Your task to perform on an android device: Open Maps and search for coffee Image 0: 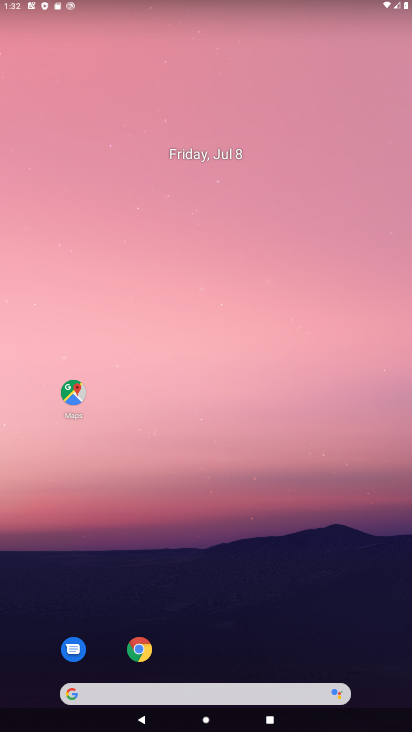
Step 0: click (60, 393)
Your task to perform on an android device: Open Maps and search for coffee Image 1: 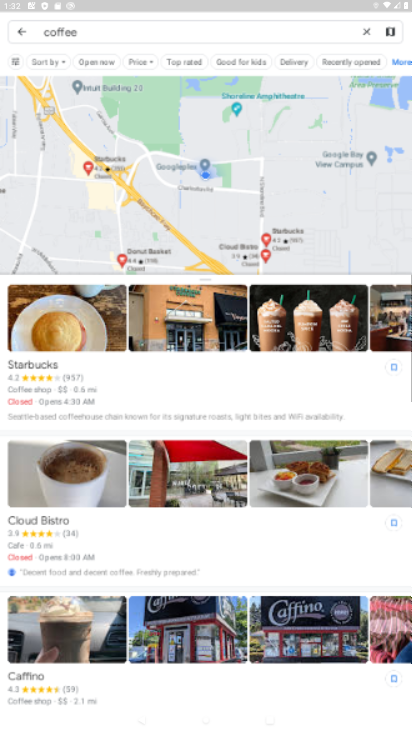
Step 1: click (102, 23)
Your task to perform on an android device: Open Maps and search for coffee Image 2: 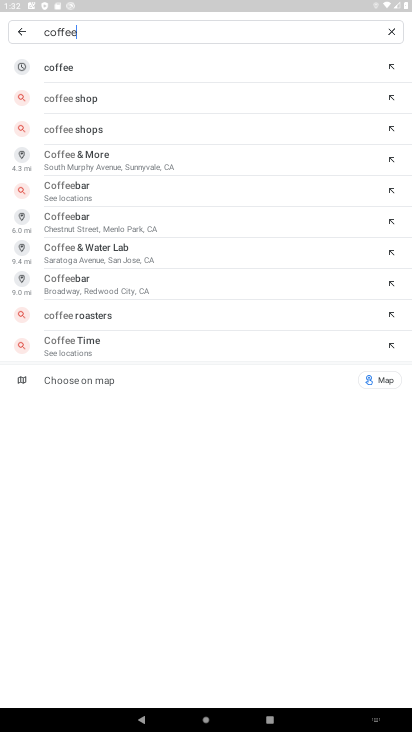
Step 2: click (62, 68)
Your task to perform on an android device: Open Maps and search for coffee Image 3: 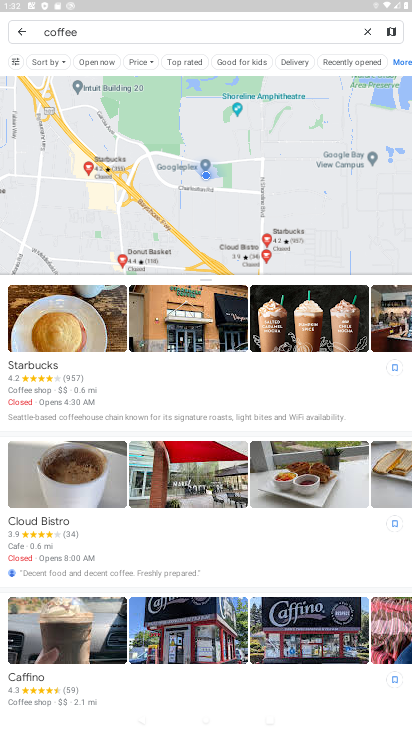
Step 3: task complete